Your task to perform on an android device: See recent photos Image 0: 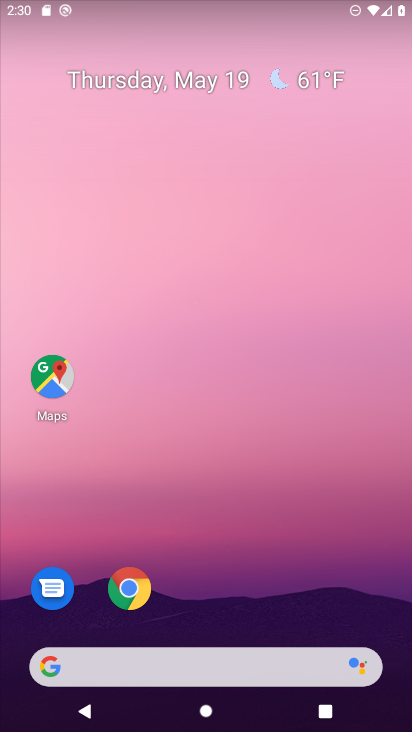
Step 0: drag from (328, 621) to (356, 17)
Your task to perform on an android device: See recent photos Image 1: 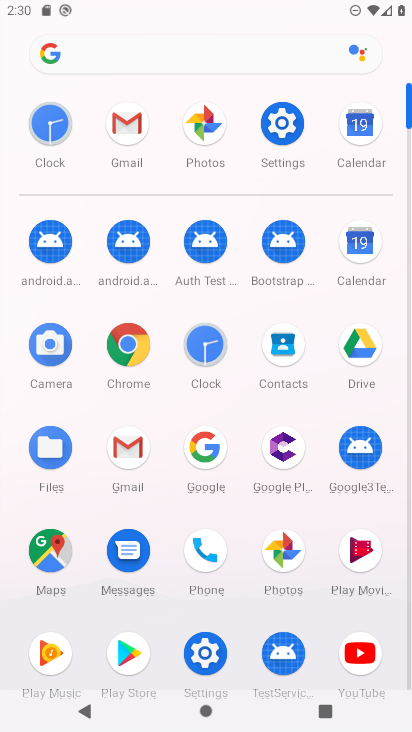
Step 1: click (198, 133)
Your task to perform on an android device: See recent photos Image 2: 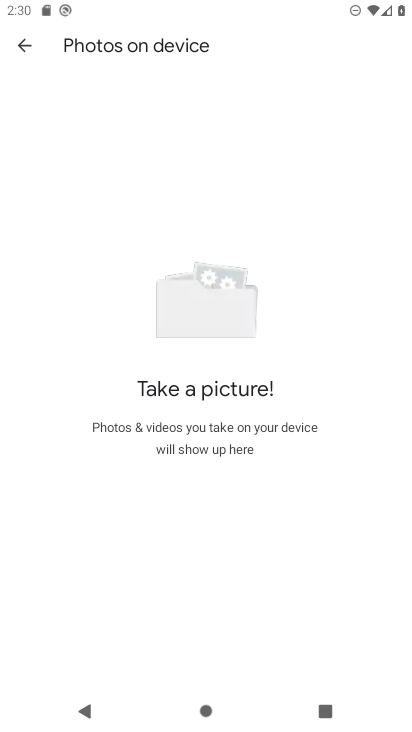
Step 2: click (33, 47)
Your task to perform on an android device: See recent photos Image 3: 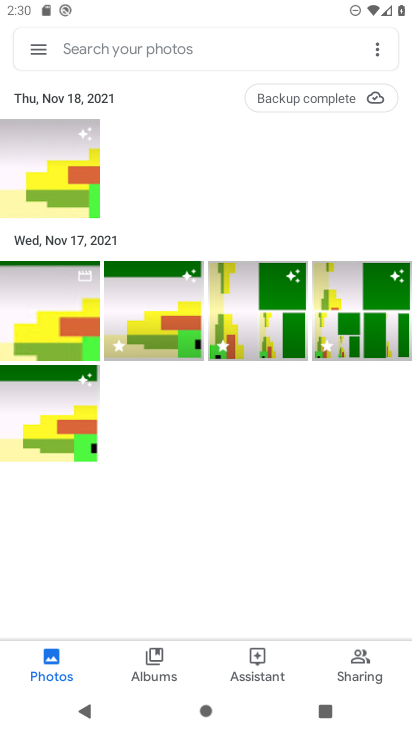
Step 3: task complete